Your task to perform on an android device: change keyboard looks Image 0: 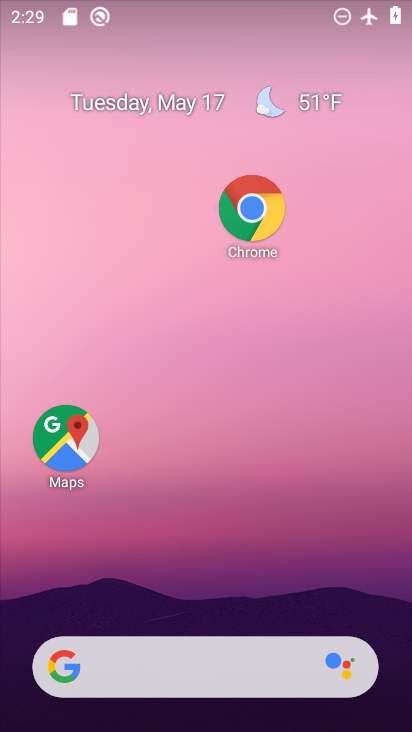
Step 0: drag from (231, 619) to (148, 54)
Your task to perform on an android device: change keyboard looks Image 1: 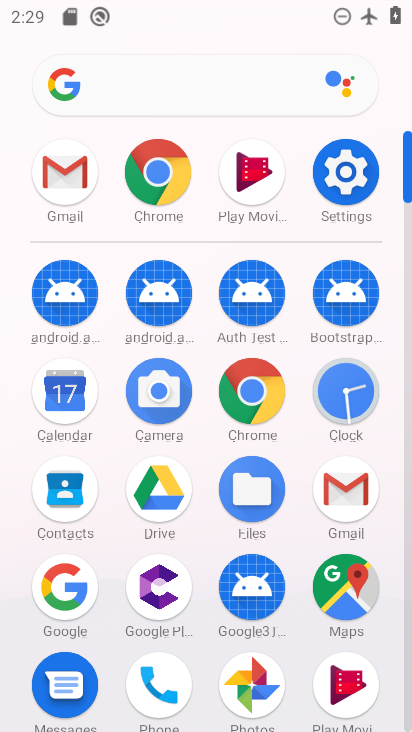
Step 1: click (323, 181)
Your task to perform on an android device: change keyboard looks Image 2: 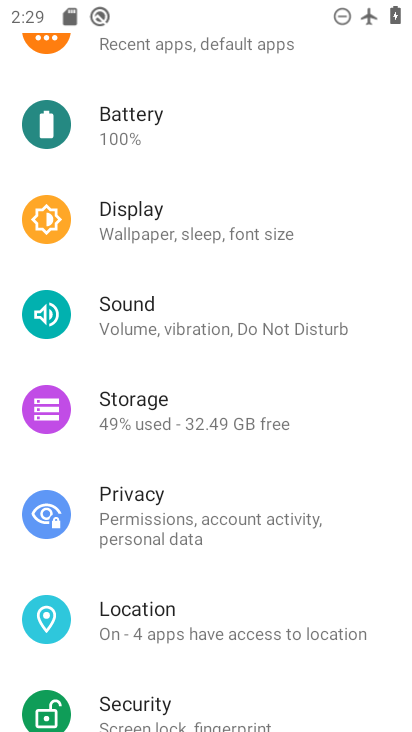
Step 2: drag from (164, 646) to (108, 196)
Your task to perform on an android device: change keyboard looks Image 3: 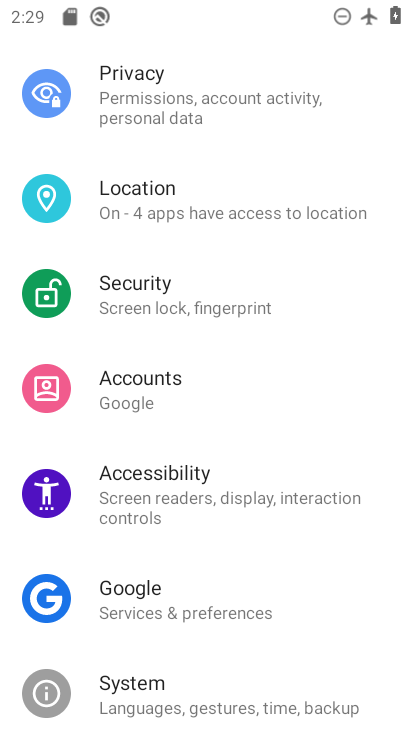
Step 3: click (133, 677)
Your task to perform on an android device: change keyboard looks Image 4: 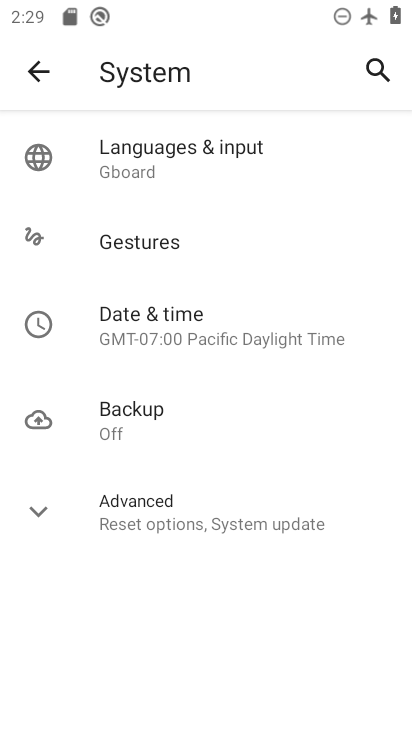
Step 4: click (128, 177)
Your task to perform on an android device: change keyboard looks Image 5: 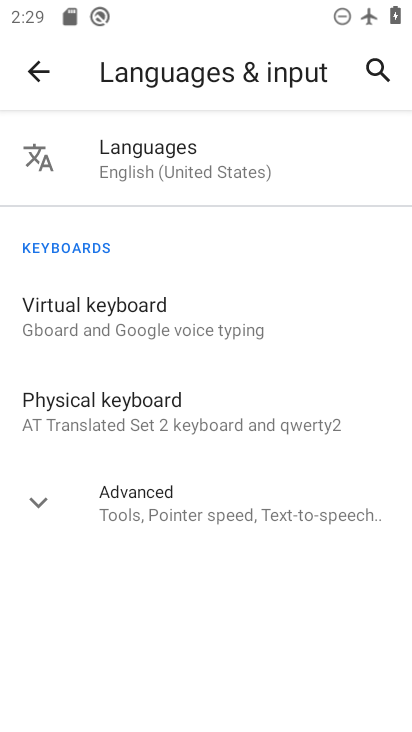
Step 5: click (133, 288)
Your task to perform on an android device: change keyboard looks Image 6: 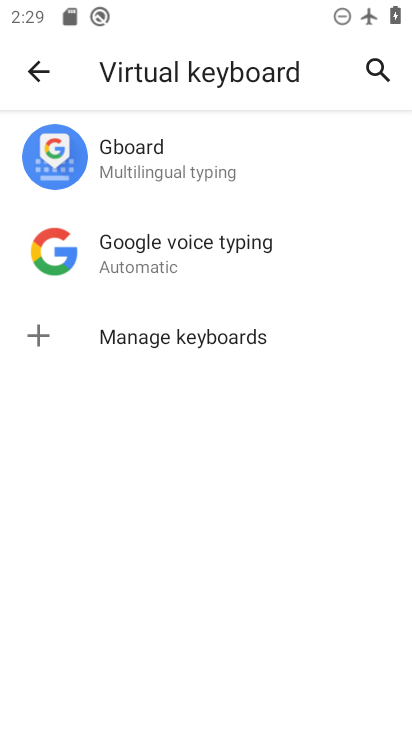
Step 6: click (145, 160)
Your task to perform on an android device: change keyboard looks Image 7: 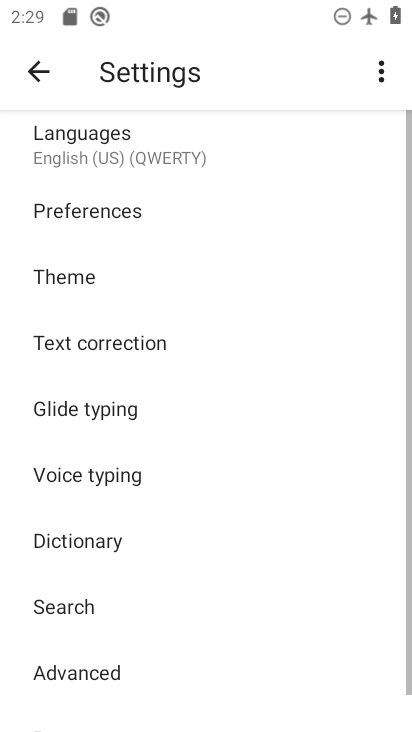
Step 7: click (86, 283)
Your task to perform on an android device: change keyboard looks Image 8: 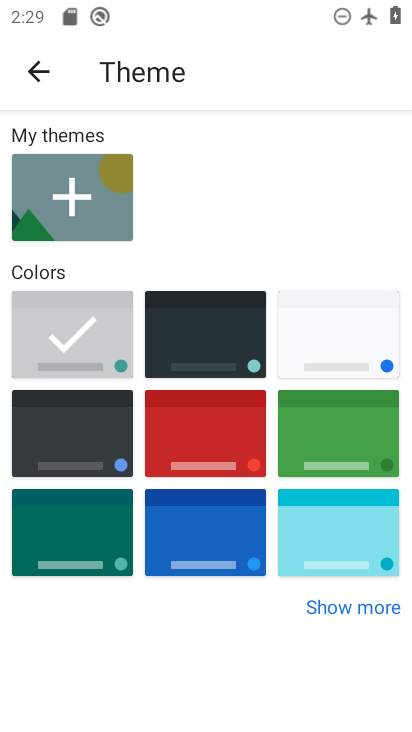
Step 8: click (159, 429)
Your task to perform on an android device: change keyboard looks Image 9: 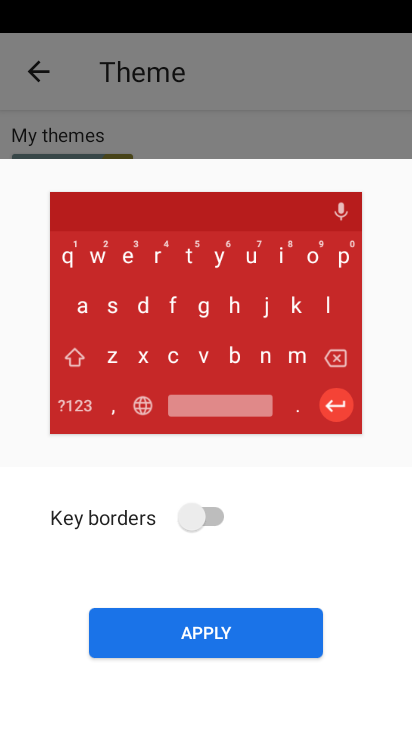
Step 9: click (225, 601)
Your task to perform on an android device: change keyboard looks Image 10: 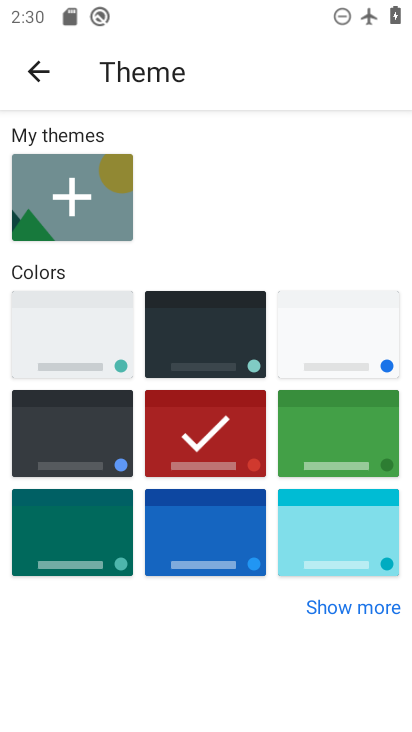
Step 10: task complete